Your task to perform on an android device: open the mobile data screen to see how much data has been used Image 0: 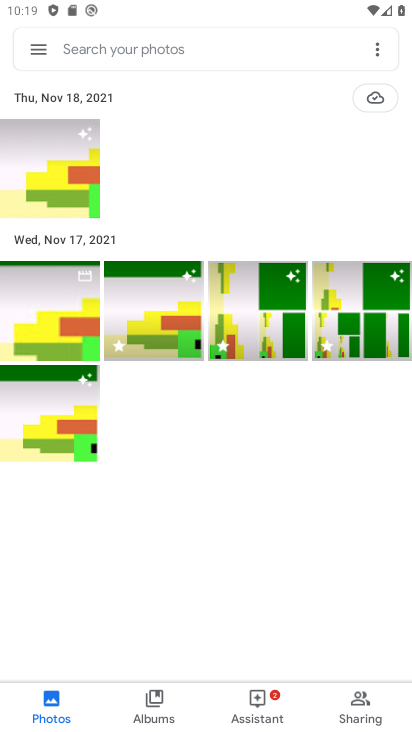
Step 0: press home button
Your task to perform on an android device: open the mobile data screen to see how much data has been used Image 1: 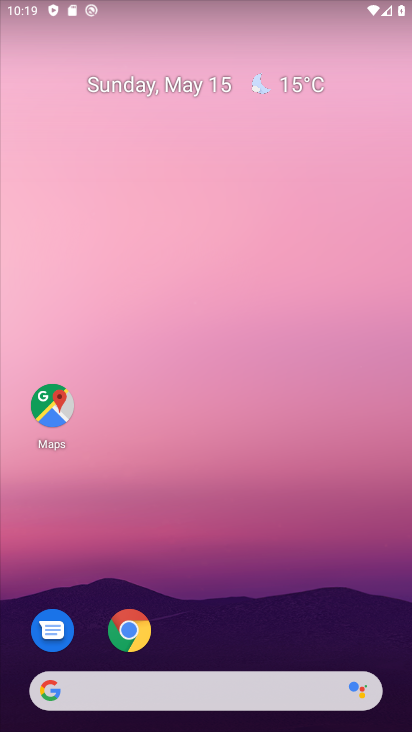
Step 1: drag from (205, 725) to (222, 38)
Your task to perform on an android device: open the mobile data screen to see how much data has been used Image 2: 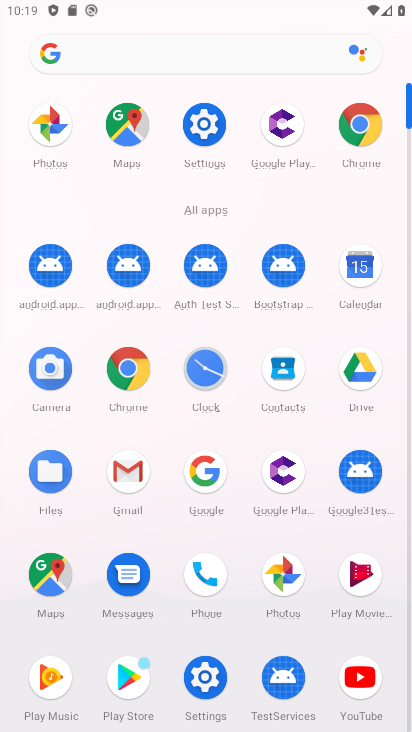
Step 2: click (206, 118)
Your task to perform on an android device: open the mobile data screen to see how much data has been used Image 3: 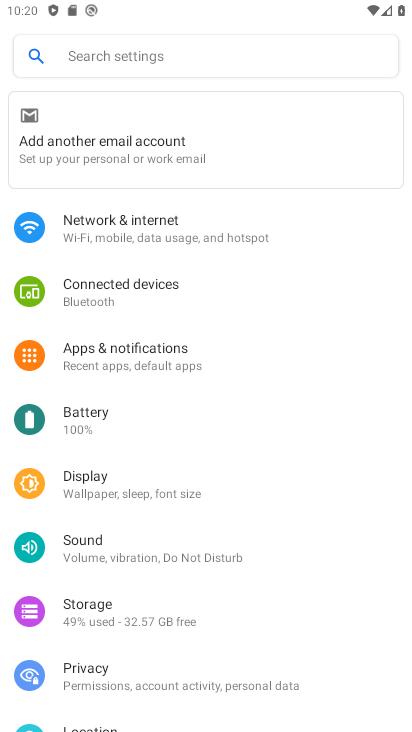
Step 3: click (152, 227)
Your task to perform on an android device: open the mobile data screen to see how much data has been used Image 4: 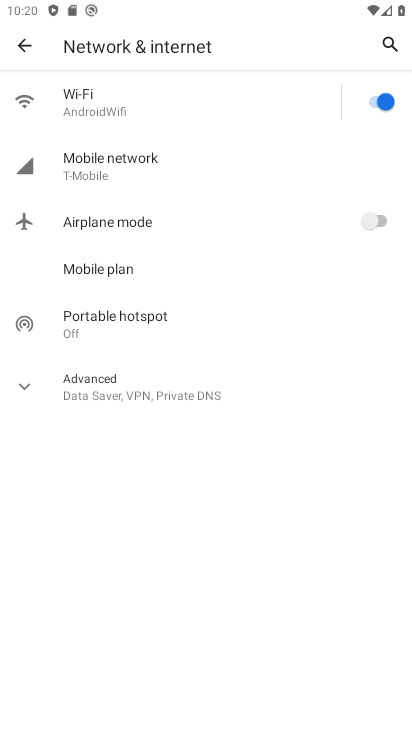
Step 4: click (117, 151)
Your task to perform on an android device: open the mobile data screen to see how much data has been used Image 5: 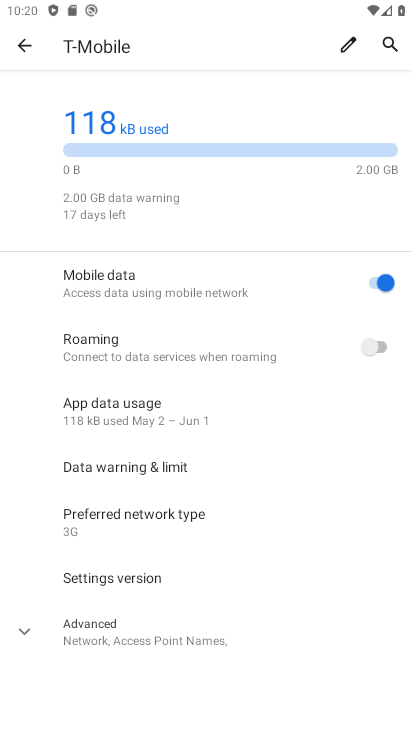
Step 5: click (128, 410)
Your task to perform on an android device: open the mobile data screen to see how much data has been used Image 6: 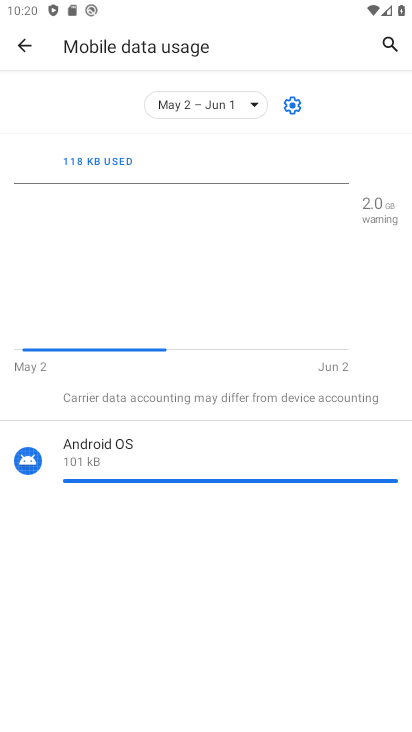
Step 6: task complete